Your task to perform on an android device: Open settings Image 0: 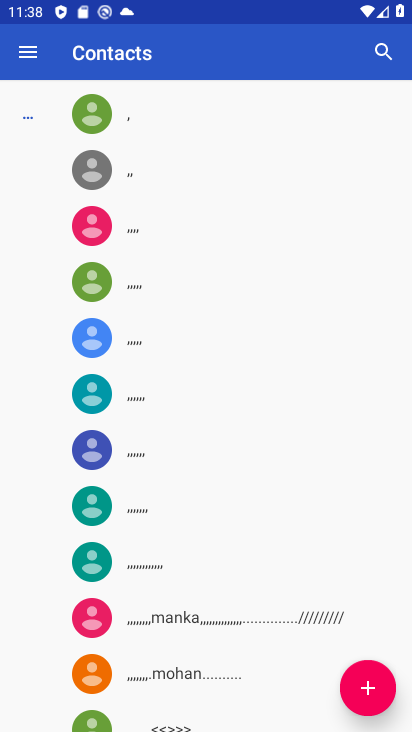
Step 0: press home button
Your task to perform on an android device: Open settings Image 1: 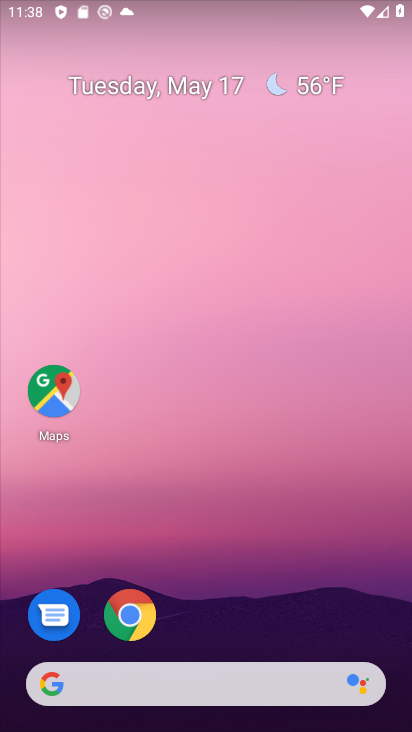
Step 1: drag from (217, 657) to (215, 0)
Your task to perform on an android device: Open settings Image 2: 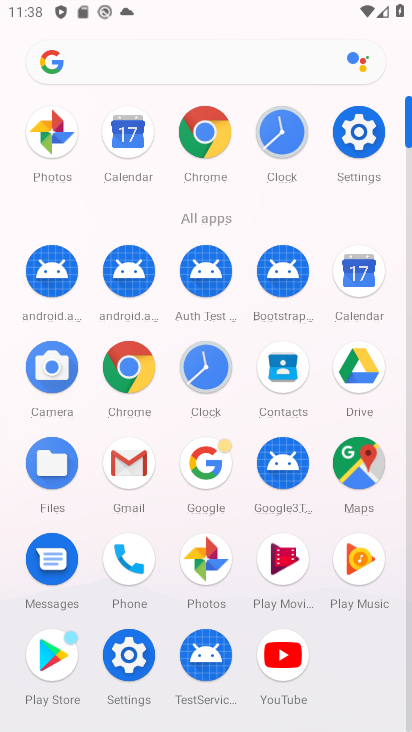
Step 2: click (359, 132)
Your task to perform on an android device: Open settings Image 3: 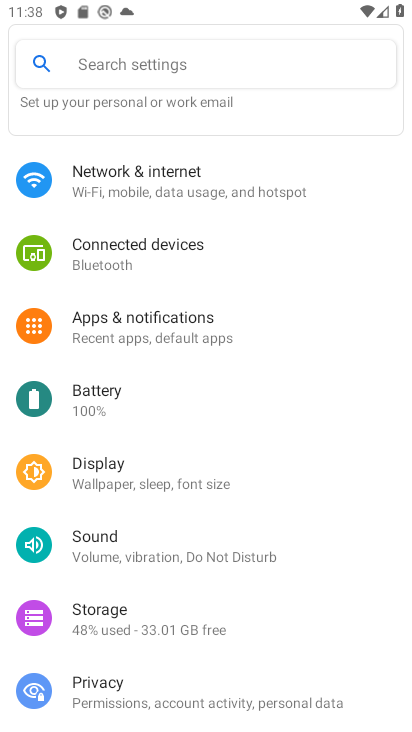
Step 3: task complete